Your task to perform on an android device: turn notification dots off Image 0: 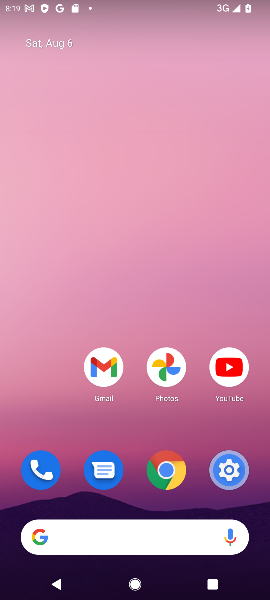
Step 0: drag from (163, 507) to (170, 1)
Your task to perform on an android device: turn notification dots off Image 1: 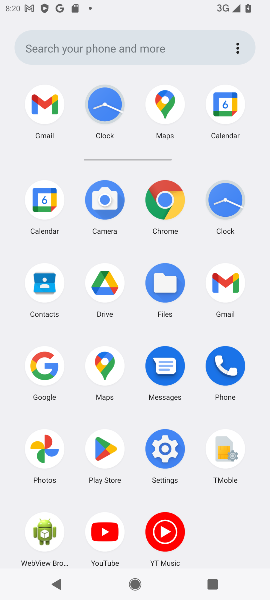
Step 1: click (172, 463)
Your task to perform on an android device: turn notification dots off Image 2: 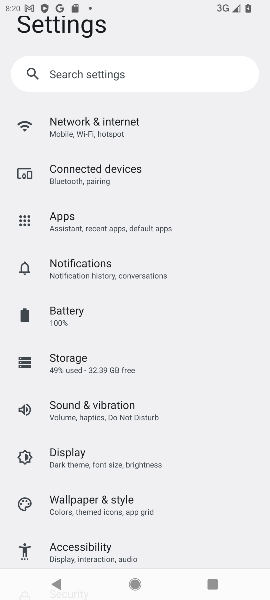
Step 2: click (111, 263)
Your task to perform on an android device: turn notification dots off Image 3: 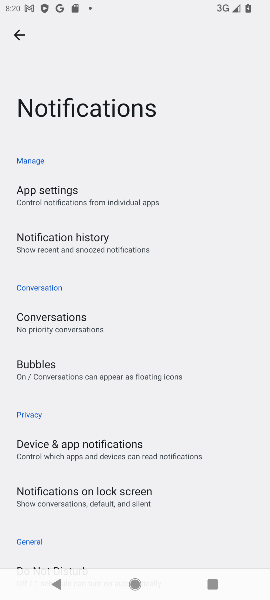
Step 3: task complete